Your task to perform on an android device: clear all cookies in the chrome app Image 0: 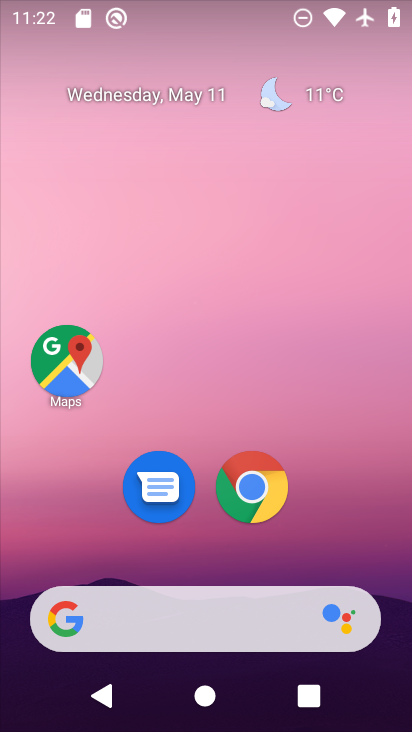
Step 0: drag from (342, 514) to (256, 14)
Your task to perform on an android device: clear all cookies in the chrome app Image 1: 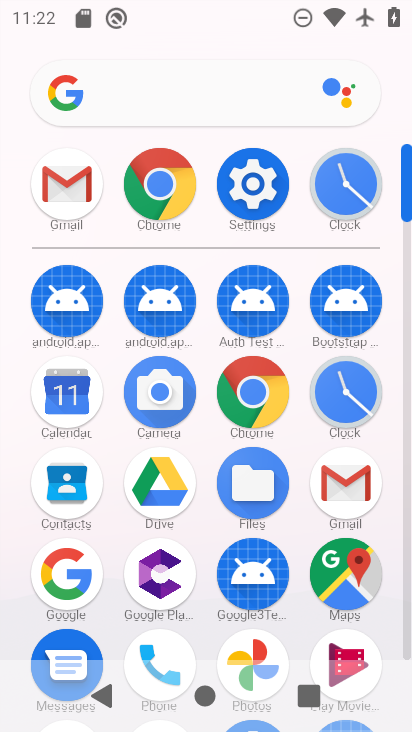
Step 1: drag from (11, 517) to (26, 262)
Your task to perform on an android device: clear all cookies in the chrome app Image 2: 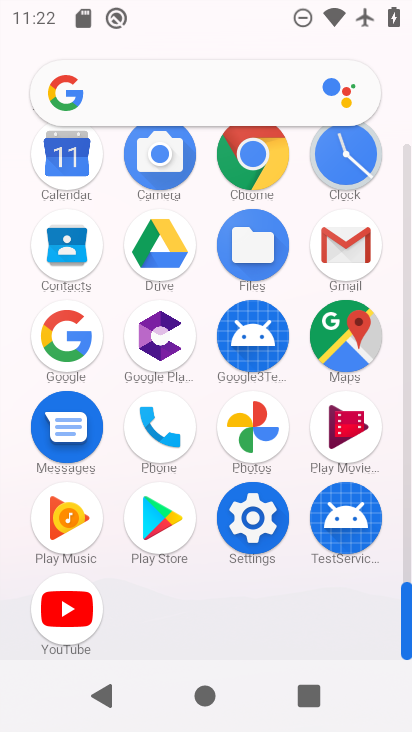
Step 2: click (251, 150)
Your task to perform on an android device: clear all cookies in the chrome app Image 3: 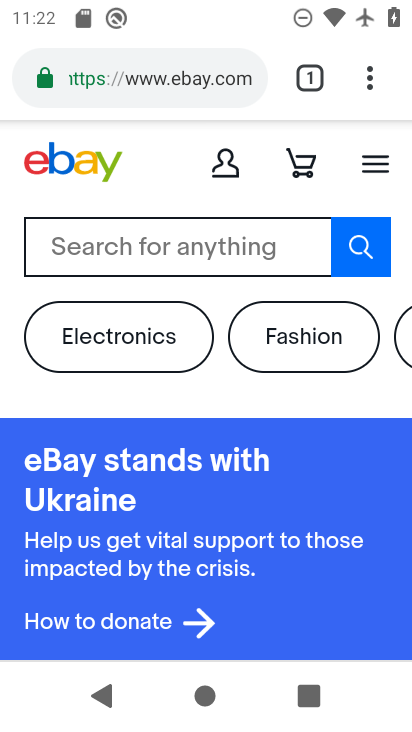
Step 3: drag from (367, 81) to (118, 543)
Your task to perform on an android device: clear all cookies in the chrome app Image 4: 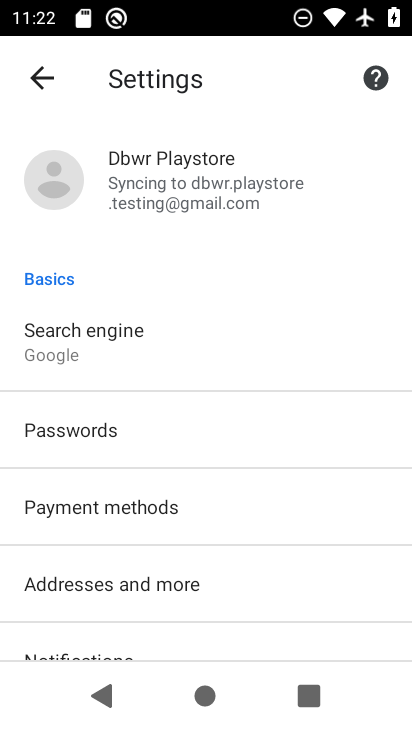
Step 4: drag from (237, 572) to (237, 220)
Your task to perform on an android device: clear all cookies in the chrome app Image 5: 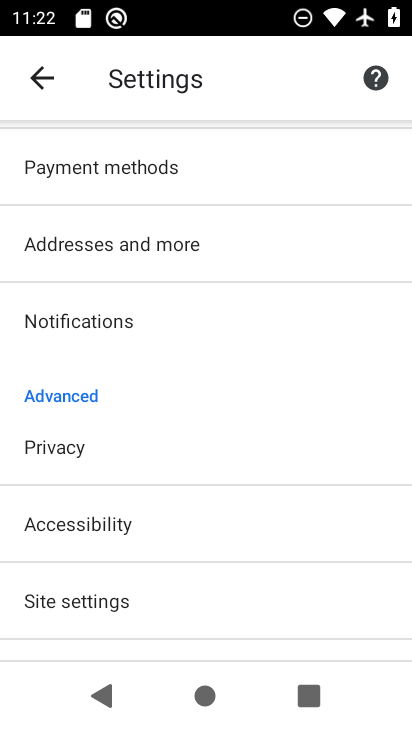
Step 5: drag from (154, 597) to (225, 203)
Your task to perform on an android device: clear all cookies in the chrome app Image 6: 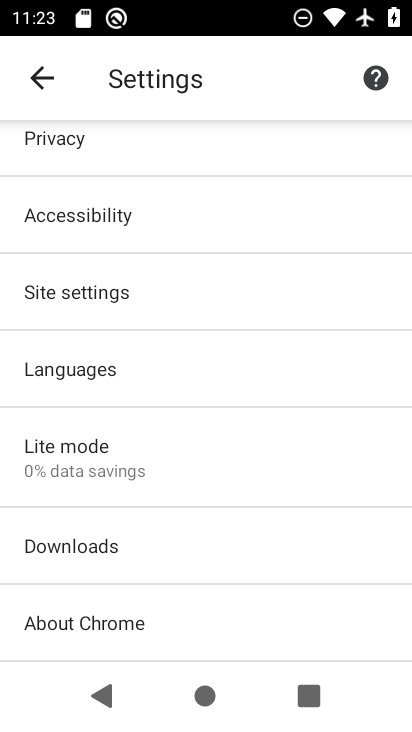
Step 6: drag from (161, 187) to (259, 539)
Your task to perform on an android device: clear all cookies in the chrome app Image 7: 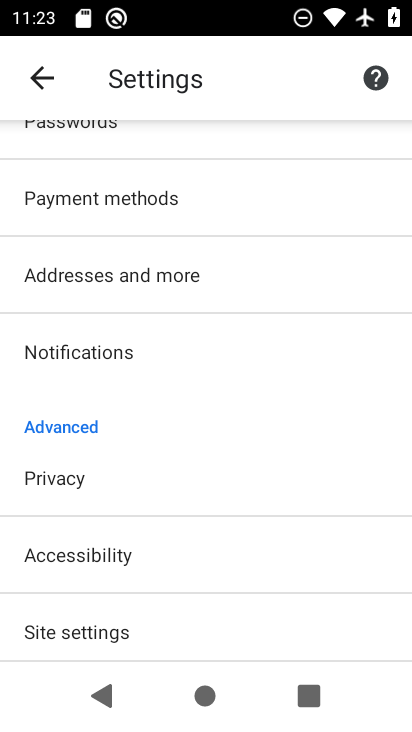
Step 7: drag from (244, 243) to (274, 584)
Your task to perform on an android device: clear all cookies in the chrome app Image 8: 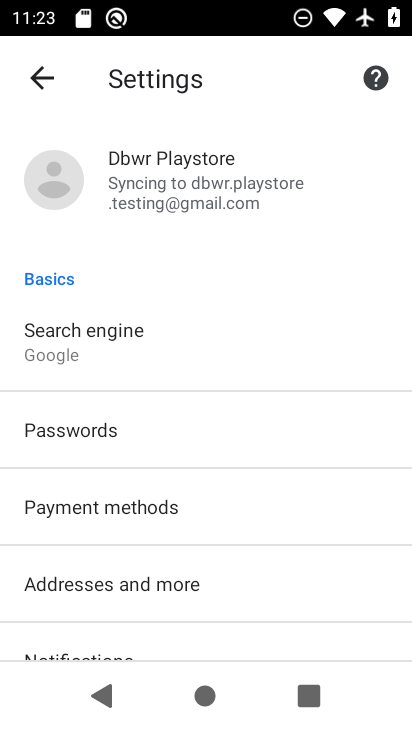
Step 8: drag from (251, 596) to (262, 317)
Your task to perform on an android device: clear all cookies in the chrome app Image 9: 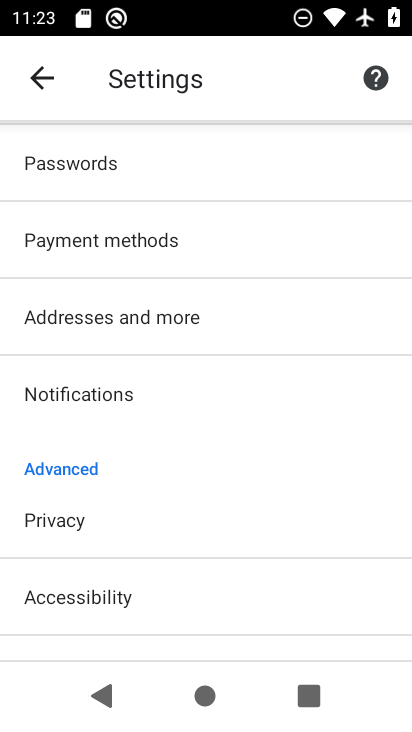
Step 9: drag from (243, 518) to (259, 224)
Your task to perform on an android device: clear all cookies in the chrome app Image 10: 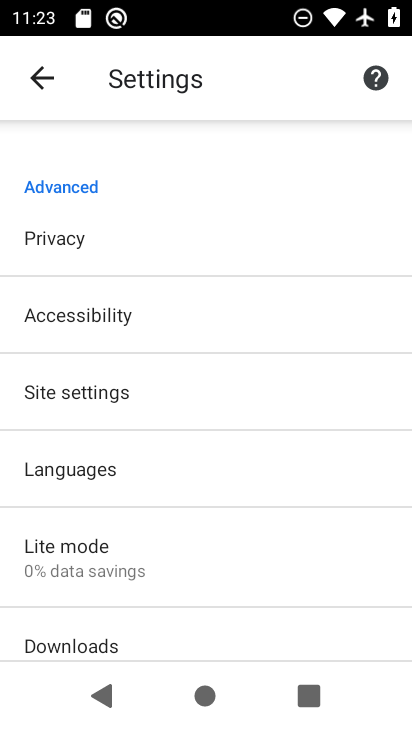
Step 10: click (143, 240)
Your task to perform on an android device: clear all cookies in the chrome app Image 11: 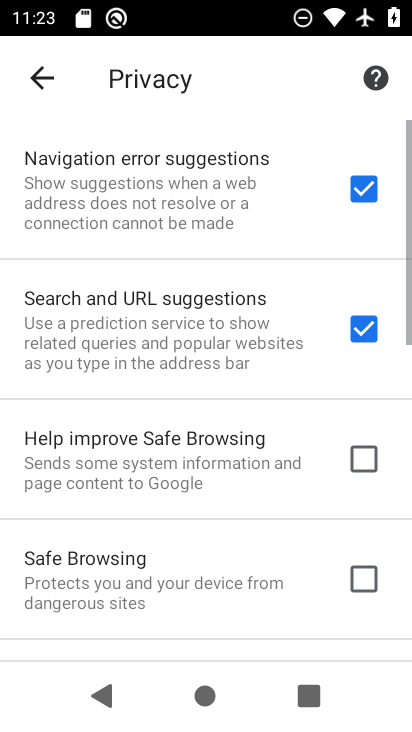
Step 11: drag from (186, 564) to (218, 152)
Your task to perform on an android device: clear all cookies in the chrome app Image 12: 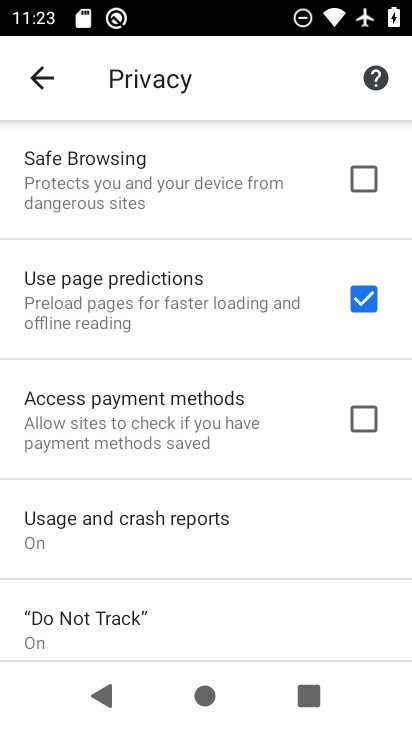
Step 12: drag from (198, 580) to (224, 157)
Your task to perform on an android device: clear all cookies in the chrome app Image 13: 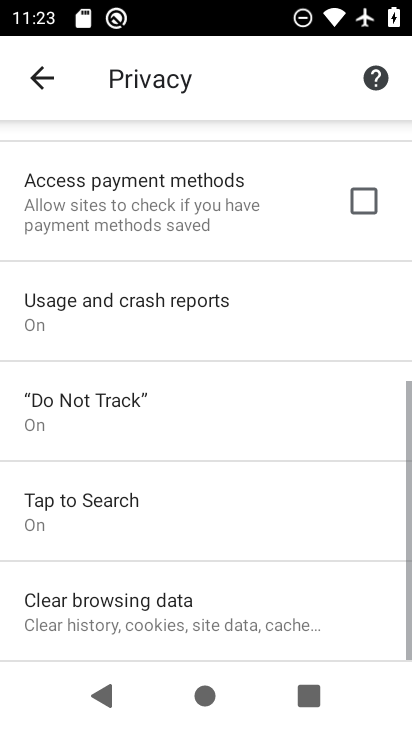
Step 13: click (172, 611)
Your task to perform on an android device: clear all cookies in the chrome app Image 14: 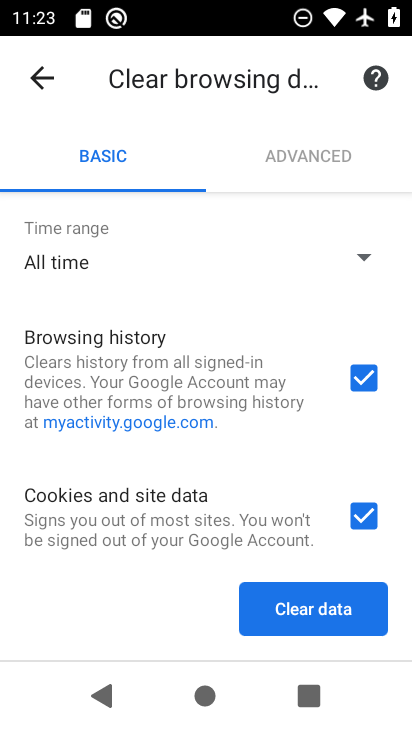
Step 14: click (356, 372)
Your task to perform on an android device: clear all cookies in the chrome app Image 15: 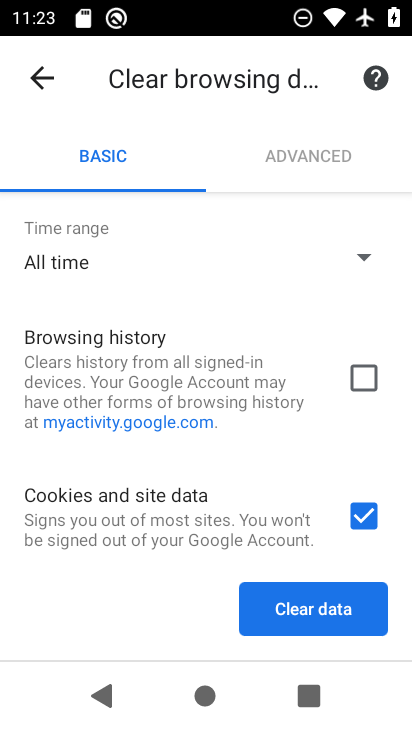
Step 15: click (310, 608)
Your task to perform on an android device: clear all cookies in the chrome app Image 16: 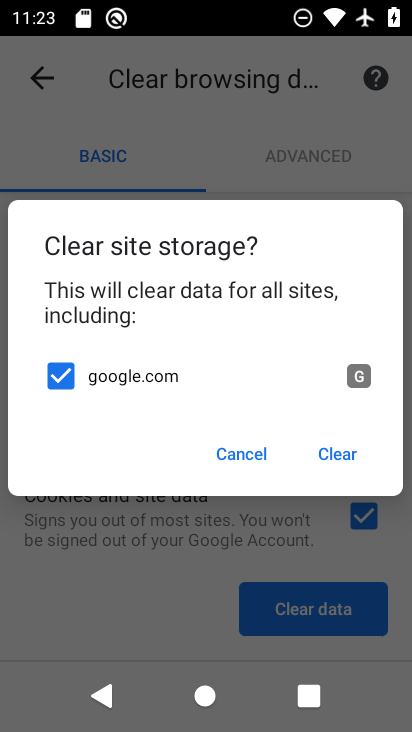
Step 16: click (347, 437)
Your task to perform on an android device: clear all cookies in the chrome app Image 17: 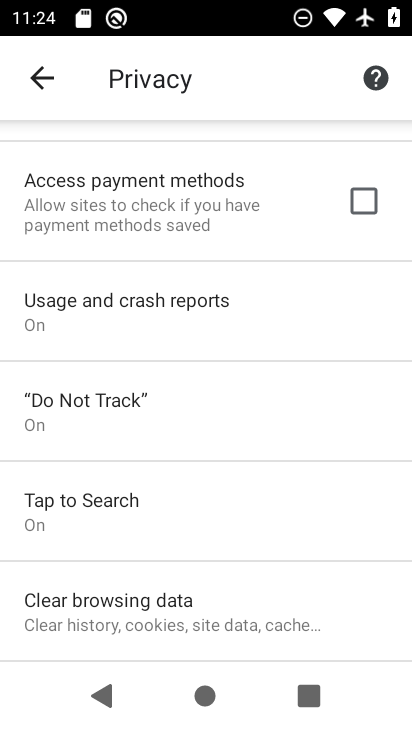
Step 17: click (174, 607)
Your task to perform on an android device: clear all cookies in the chrome app Image 18: 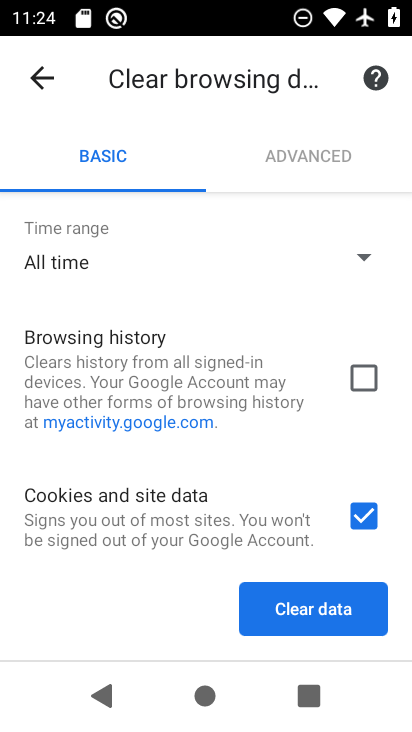
Step 18: task complete